Your task to perform on an android device: See recent photos Image 0: 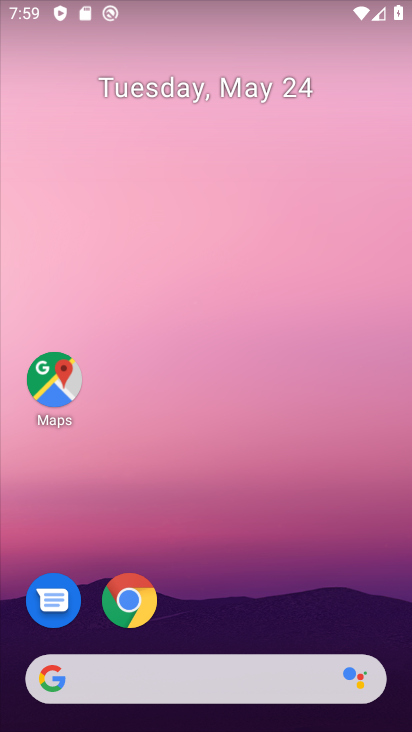
Step 0: drag from (214, 718) to (215, 177)
Your task to perform on an android device: See recent photos Image 1: 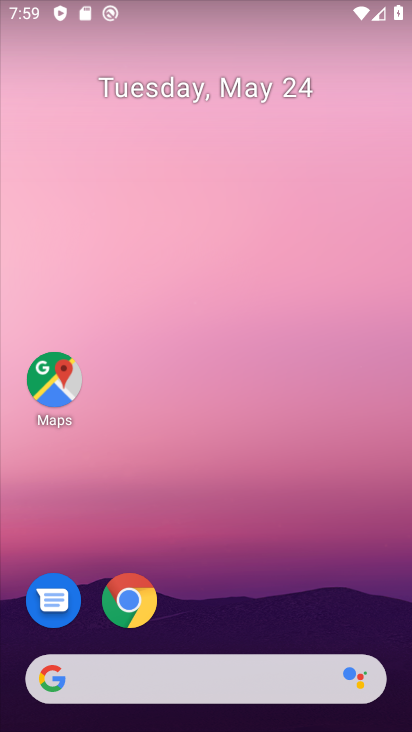
Step 1: drag from (239, 730) to (245, 261)
Your task to perform on an android device: See recent photos Image 2: 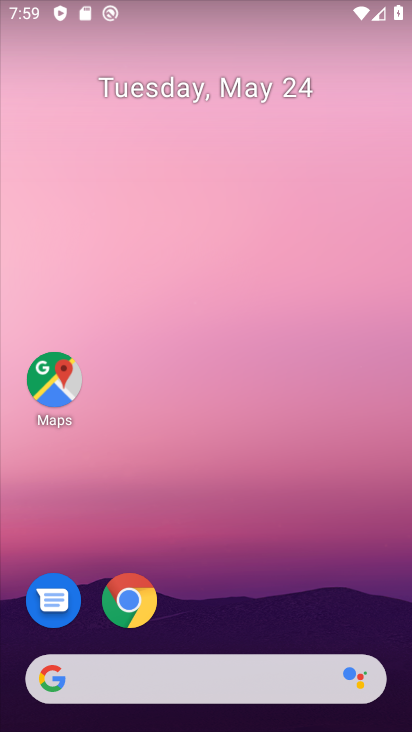
Step 2: drag from (169, 724) to (187, 94)
Your task to perform on an android device: See recent photos Image 3: 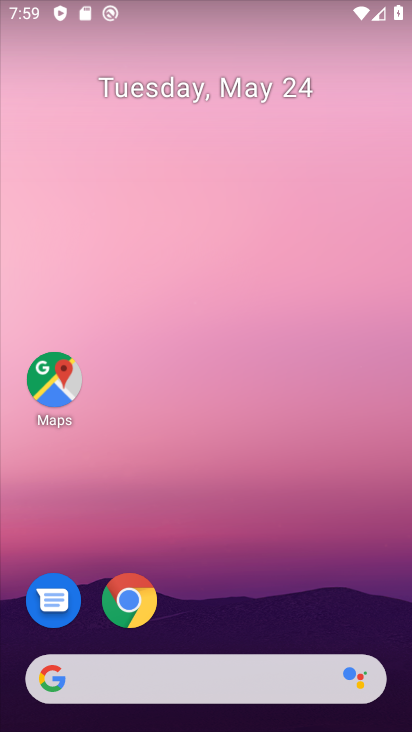
Step 3: drag from (230, 722) to (232, 101)
Your task to perform on an android device: See recent photos Image 4: 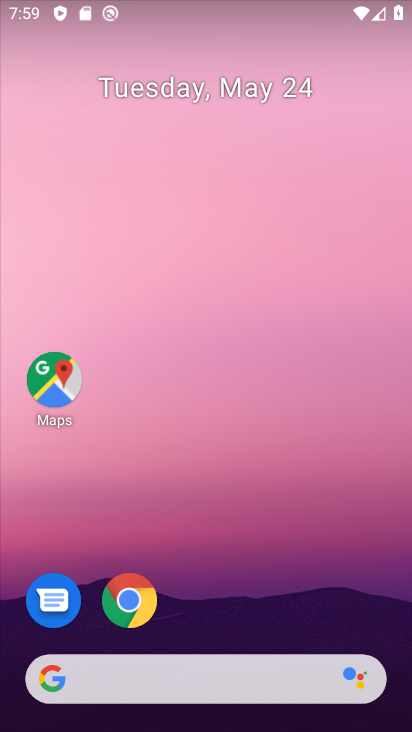
Step 4: drag from (178, 669) to (208, 0)
Your task to perform on an android device: See recent photos Image 5: 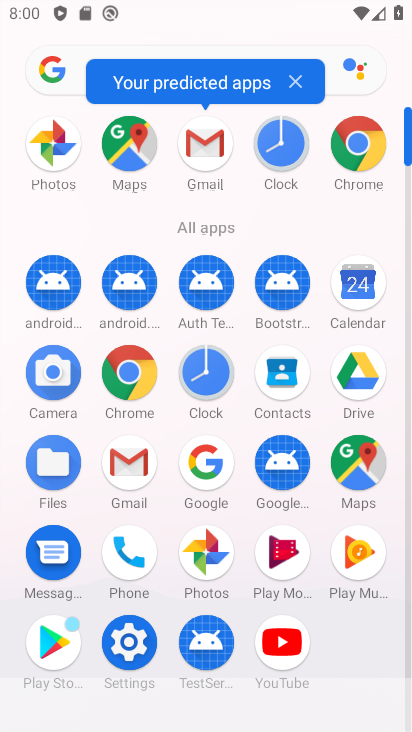
Step 5: click (213, 554)
Your task to perform on an android device: See recent photos Image 6: 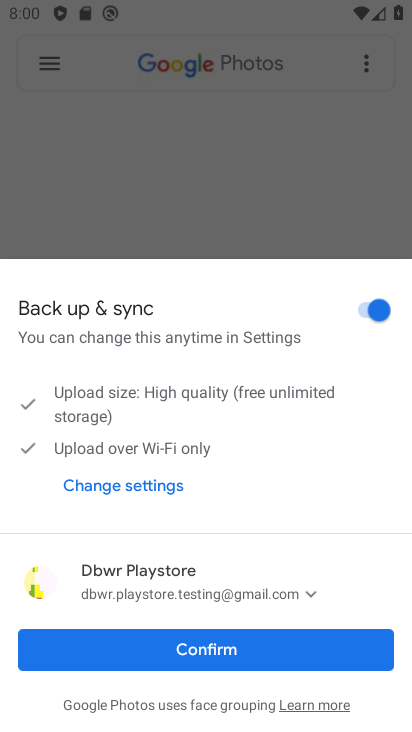
Step 6: click (203, 654)
Your task to perform on an android device: See recent photos Image 7: 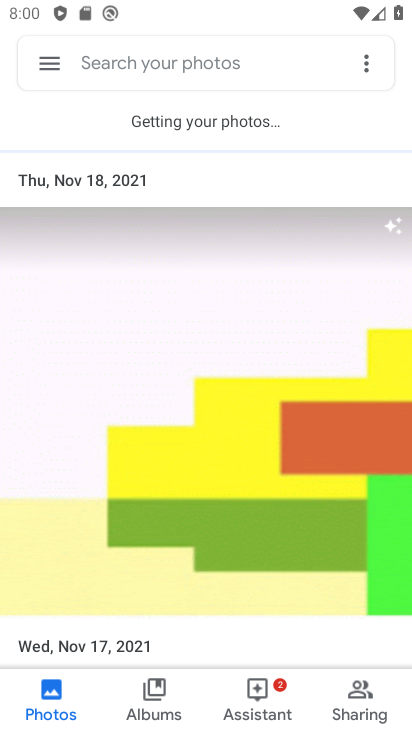
Step 7: click (252, 285)
Your task to perform on an android device: See recent photos Image 8: 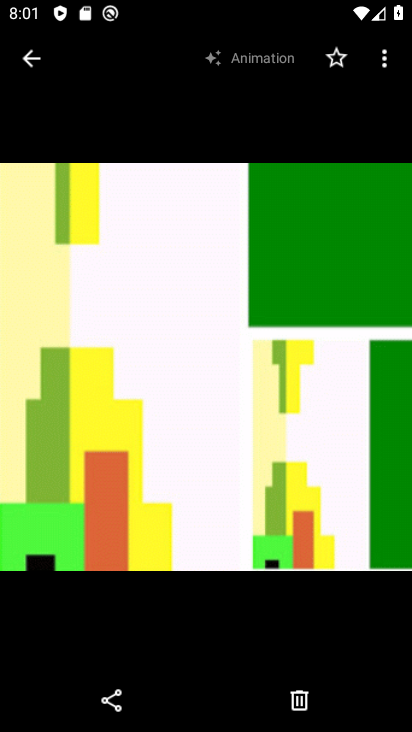
Step 8: task complete